Your task to perform on an android device: Go to Reddit.com Image 0: 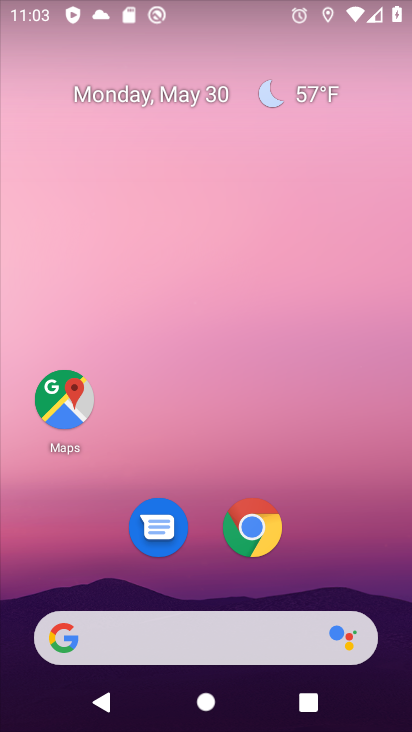
Step 0: drag from (356, 562) to (355, 111)
Your task to perform on an android device: Go to Reddit.com Image 1: 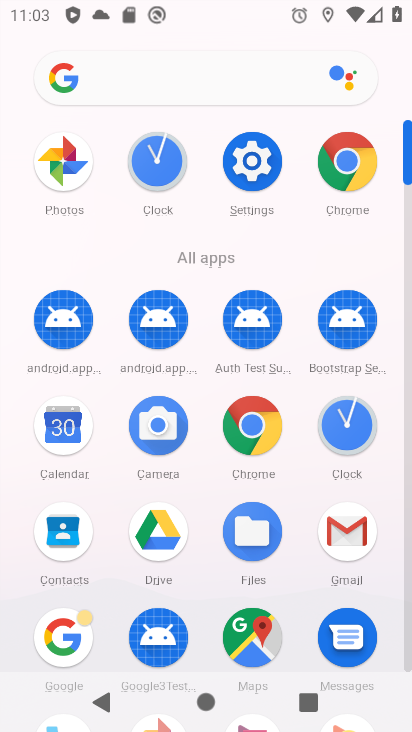
Step 1: drag from (133, 506) to (159, 191)
Your task to perform on an android device: Go to Reddit.com Image 2: 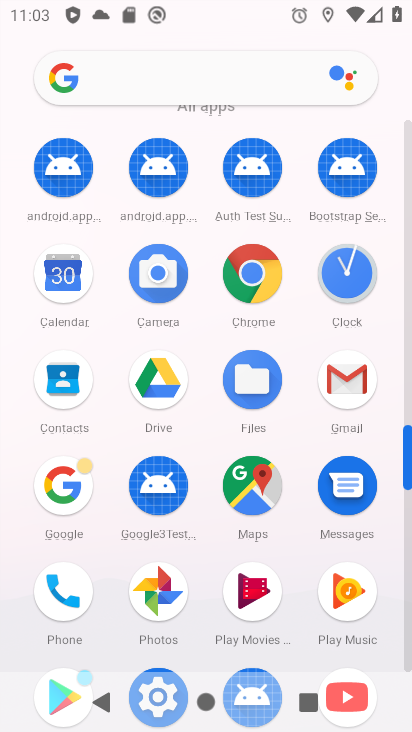
Step 2: drag from (318, 635) to (306, 384)
Your task to perform on an android device: Go to Reddit.com Image 3: 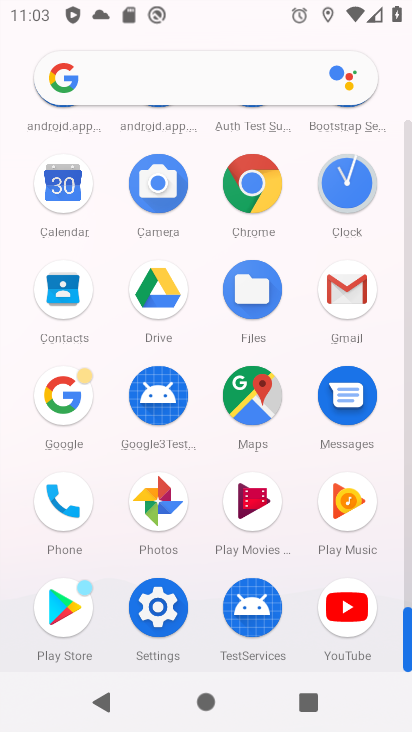
Step 3: click (261, 201)
Your task to perform on an android device: Go to Reddit.com Image 4: 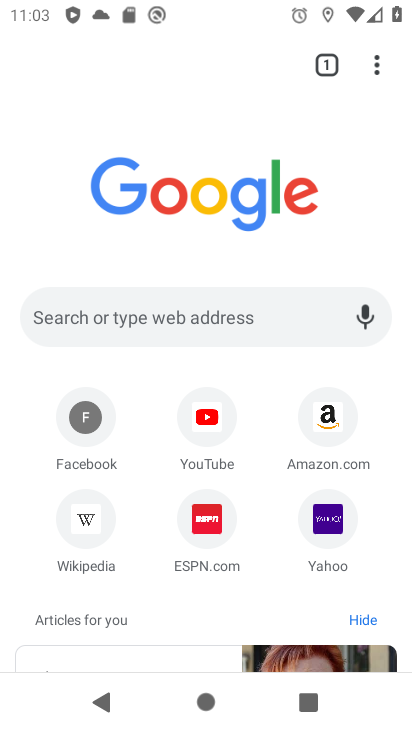
Step 4: click (218, 336)
Your task to perform on an android device: Go to Reddit.com Image 5: 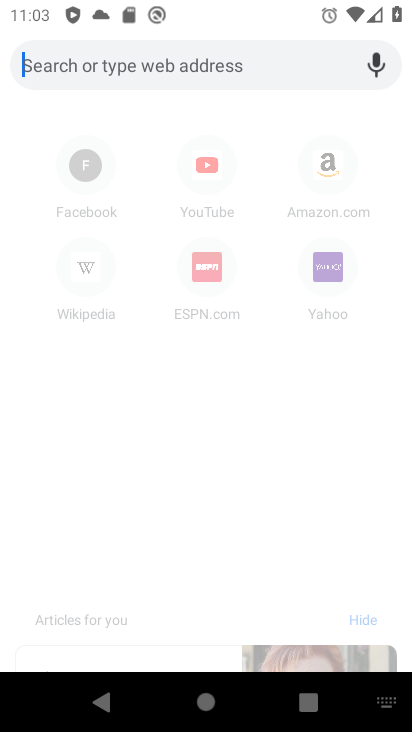
Step 5: type "reddit.com"
Your task to perform on an android device: Go to Reddit.com Image 6: 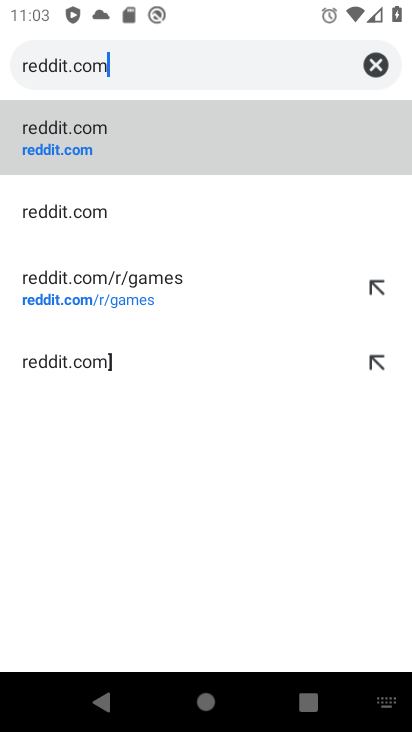
Step 6: click (164, 134)
Your task to perform on an android device: Go to Reddit.com Image 7: 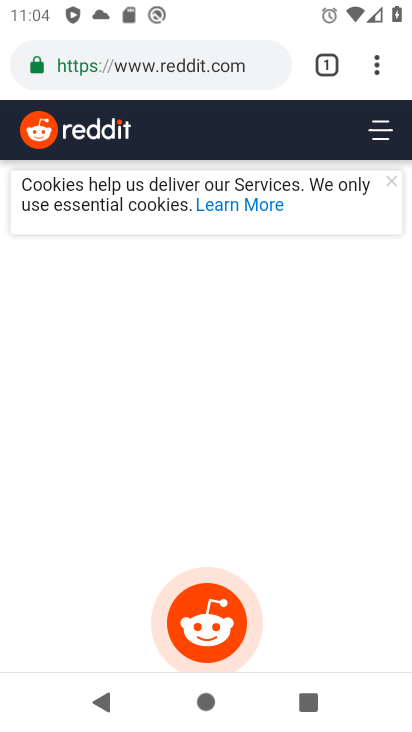
Step 7: task complete